Your task to perform on an android device: open a bookmark in the chrome app Image 0: 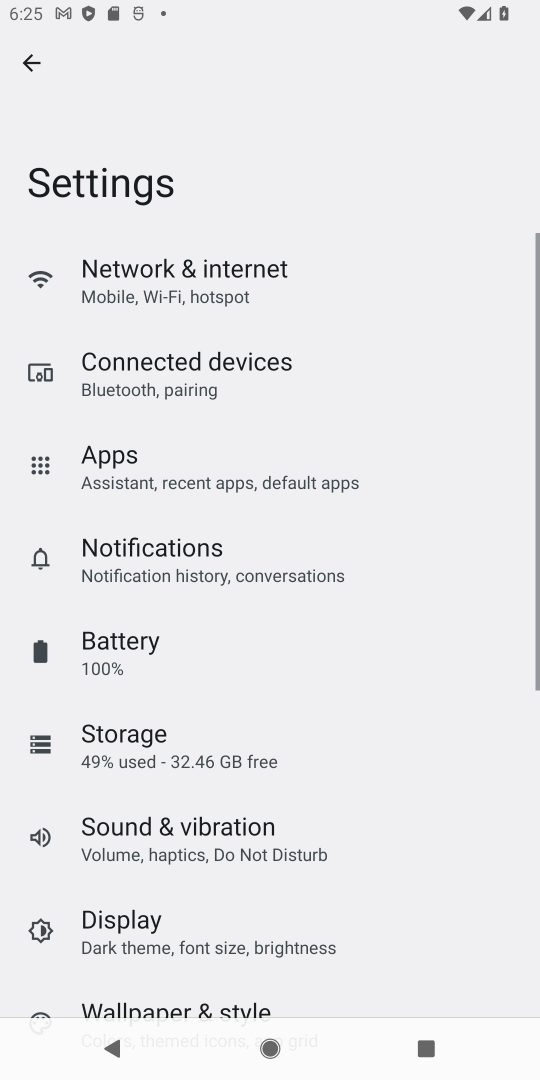
Step 0: press home button
Your task to perform on an android device: open a bookmark in the chrome app Image 1: 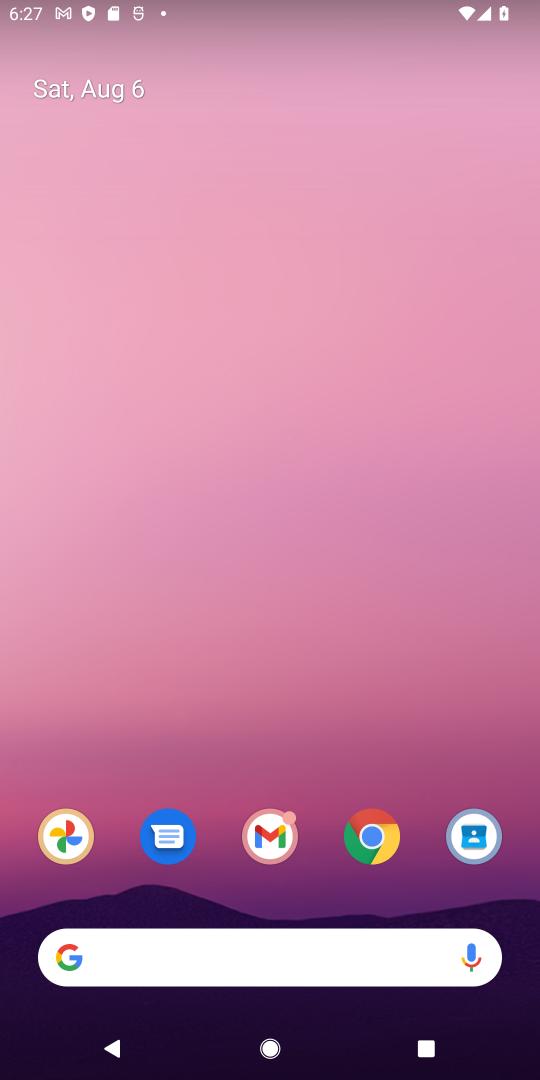
Step 1: drag from (403, 907) to (422, 30)
Your task to perform on an android device: open a bookmark in the chrome app Image 2: 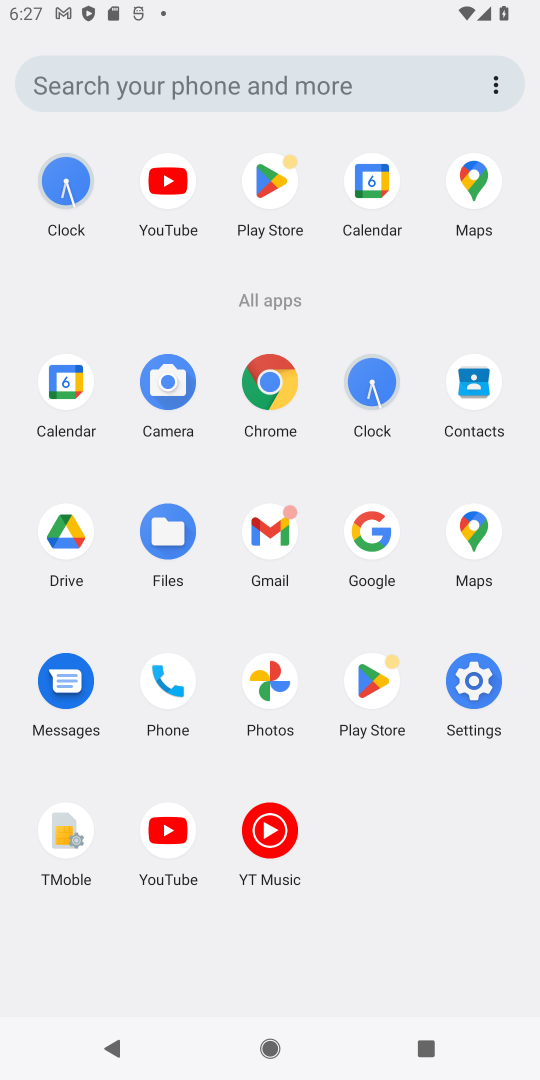
Step 2: click (260, 387)
Your task to perform on an android device: open a bookmark in the chrome app Image 3: 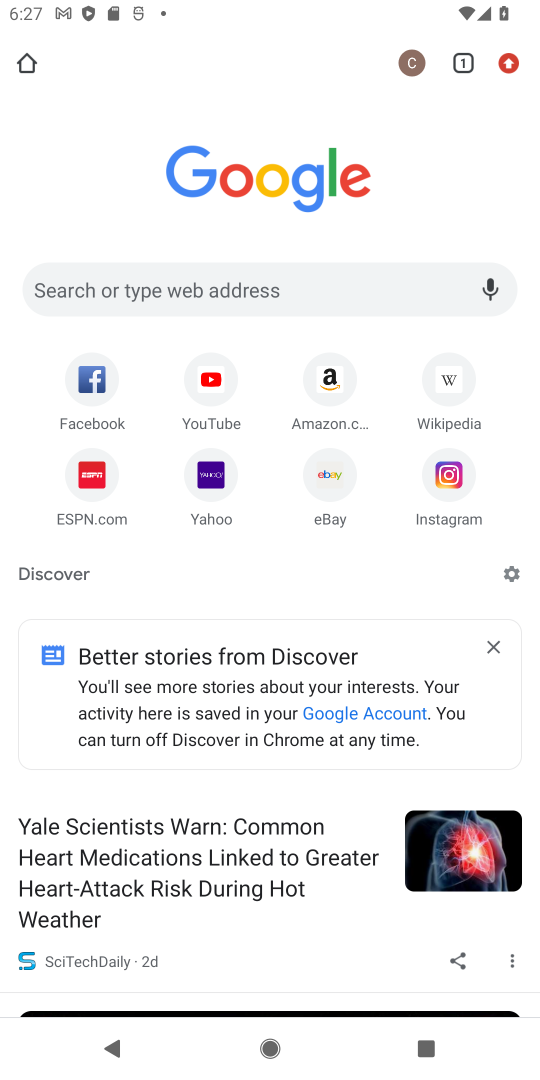
Step 3: click (502, 73)
Your task to perform on an android device: open a bookmark in the chrome app Image 4: 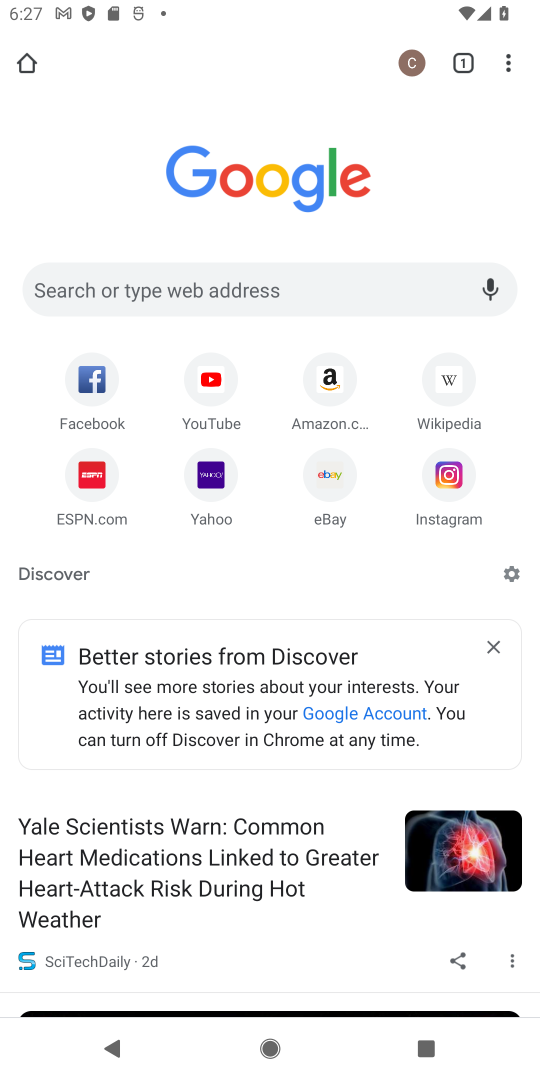
Step 4: click (502, 73)
Your task to perform on an android device: open a bookmark in the chrome app Image 5: 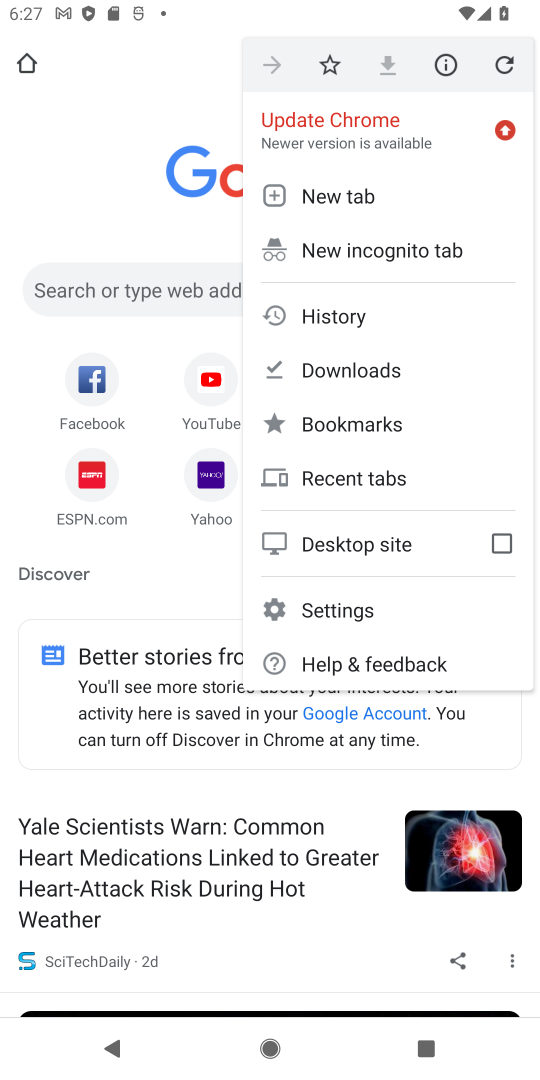
Step 5: click (347, 420)
Your task to perform on an android device: open a bookmark in the chrome app Image 6: 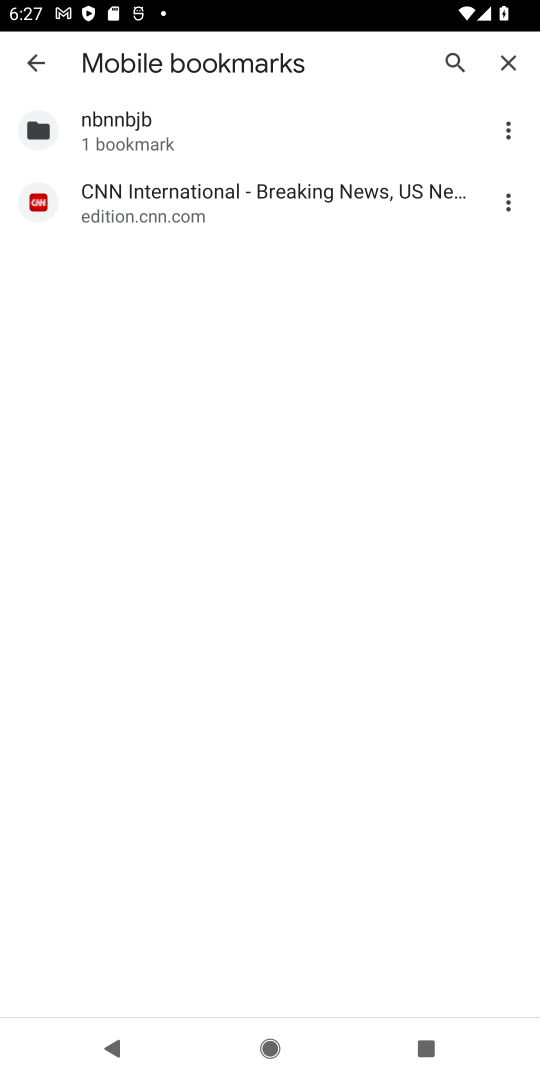
Step 6: task complete